Your task to perform on an android device: turn off translation in the chrome app Image 0: 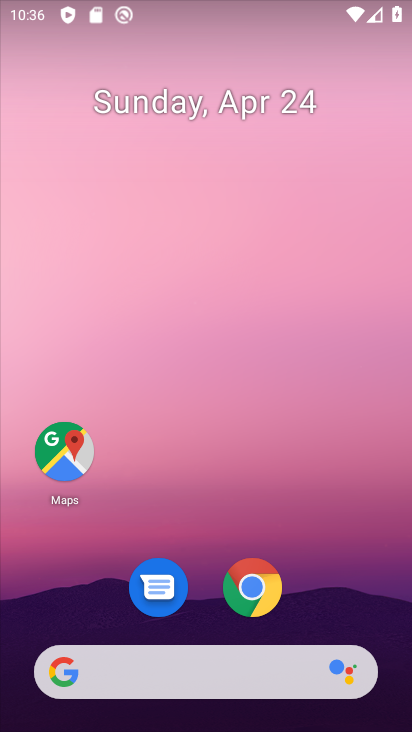
Step 0: drag from (382, 557) to (320, 102)
Your task to perform on an android device: turn off translation in the chrome app Image 1: 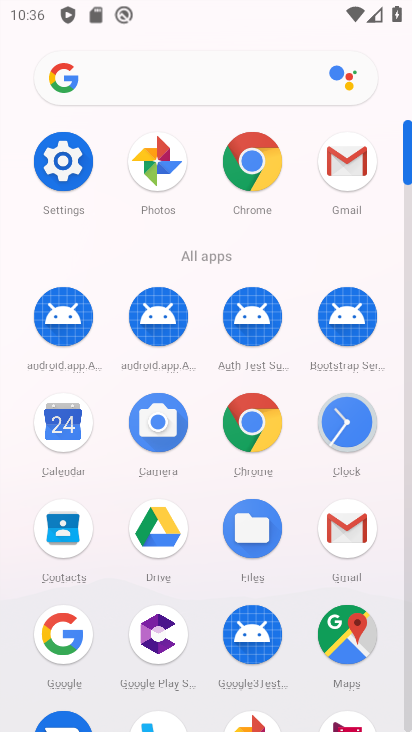
Step 1: click (278, 432)
Your task to perform on an android device: turn off translation in the chrome app Image 2: 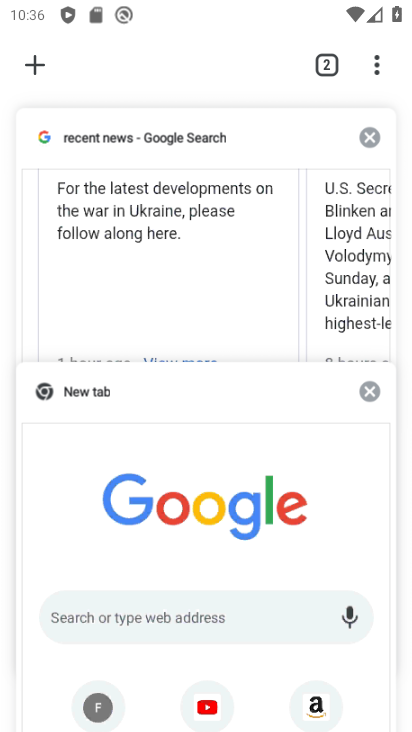
Step 2: click (37, 74)
Your task to perform on an android device: turn off translation in the chrome app Image 3: 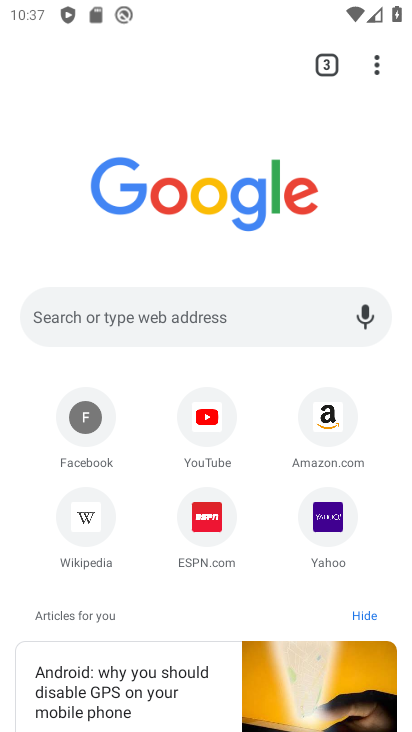
Step 3: drag from (376, 71) to (157, 543)
Your task to perform on an android device: turn off translation in the chrome app Image 4: 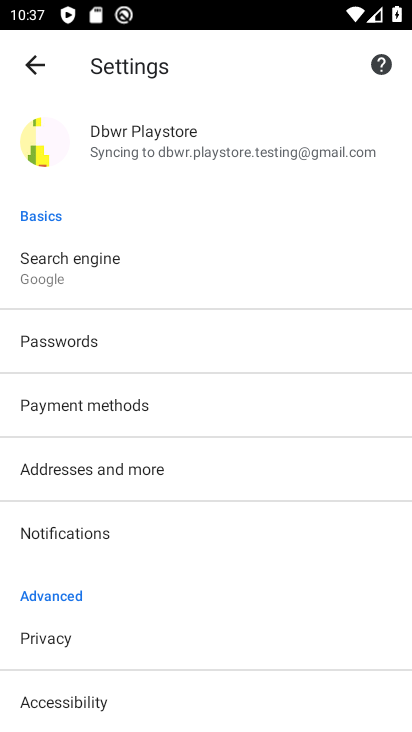
Step 4: drag from (184, 587) to (234, 314)
Your task to perform on an android device: turn off translation in the chrome app Image 5: 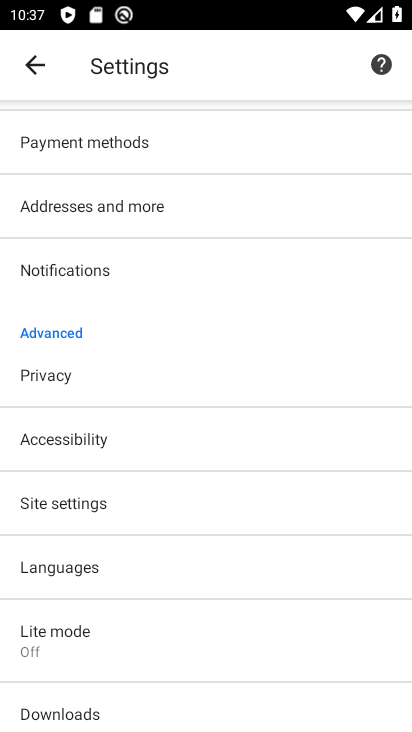
Step 5: drag from (216, 673) to (251, 357)
Your task to perform on an android device: turn off translation in the chrome app Image 6: 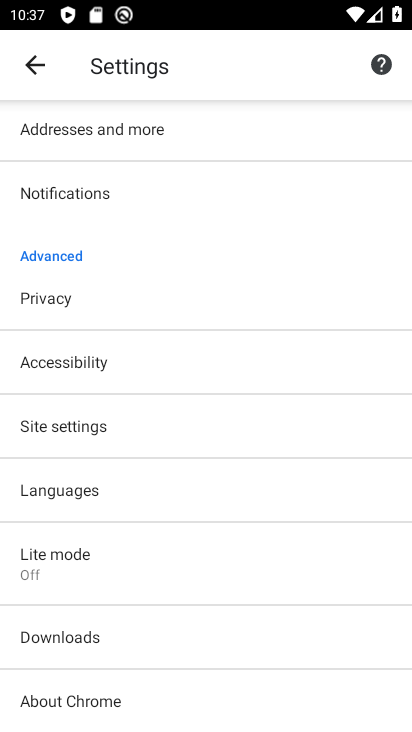
Step 6: click (95, 484)
Your task to perform on an android device: turn off translation in the chrome app Image 7: 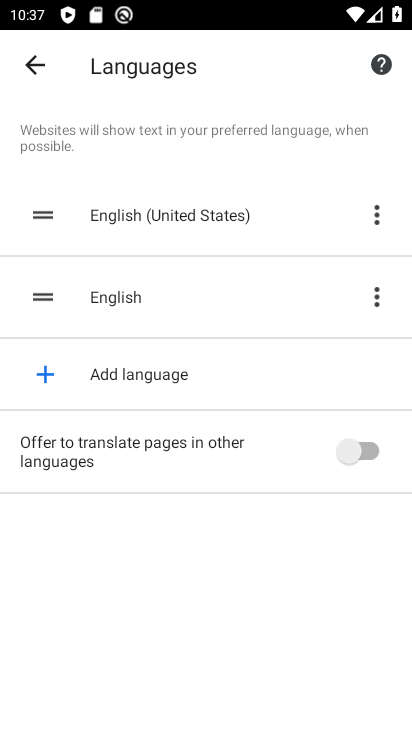
Step 7: task complete